Your task to perform on an android device: open a bookmark in the chrome app Image 0: 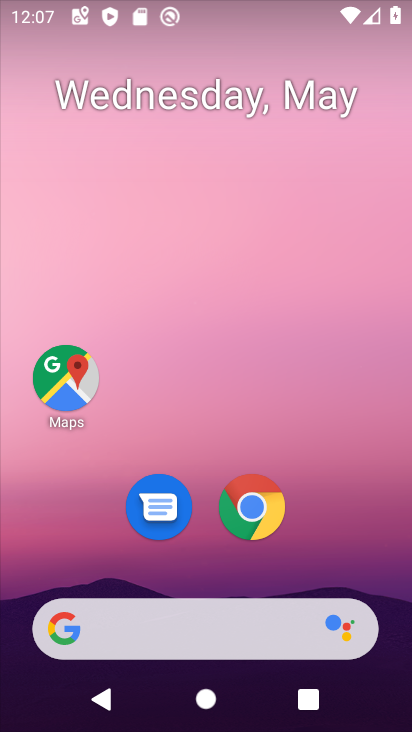
Step 0: drag from (282, 597) to (342, 246)
Your task to perform on an android device: open a bookmark in the chrome app Image 1: 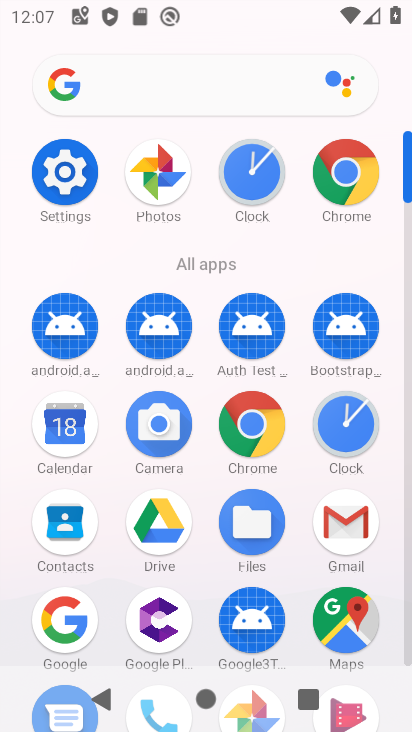
Step 1: click (358, 148)
Your task to perform on an android device: open a bookmark in the chrome app Image 2: 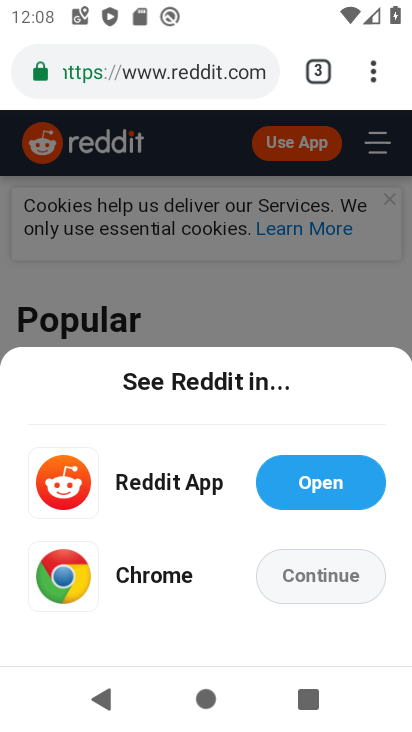
Step 2: click (374, 57)
Your task to perform on an android device: open a bookmark in the chrome app Image 3: 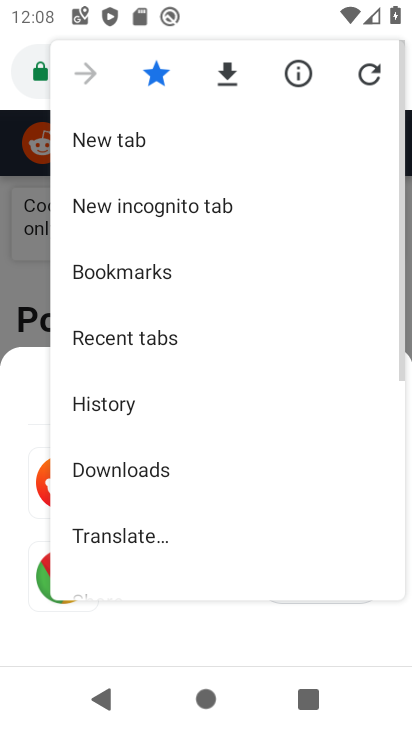
Step 3: click (170, 268)
Your task to perform on an android device: open a bookmark in the chrome app Image 4: 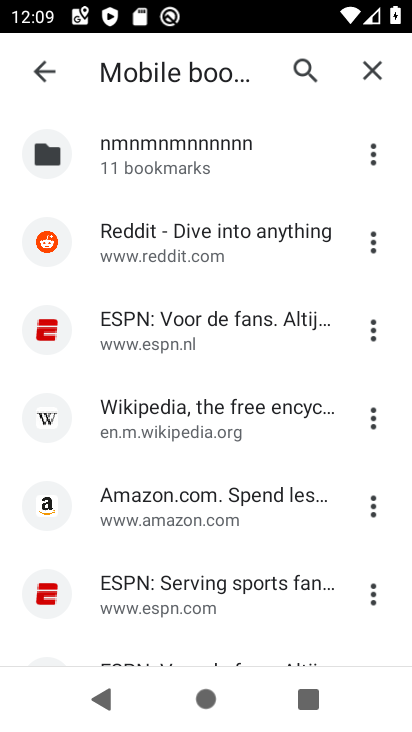
Step 4: task complete